Your task to perform on an android device: Search for "razer thresher" on amazon, select the first entry, and add it to the cart. Image 0: 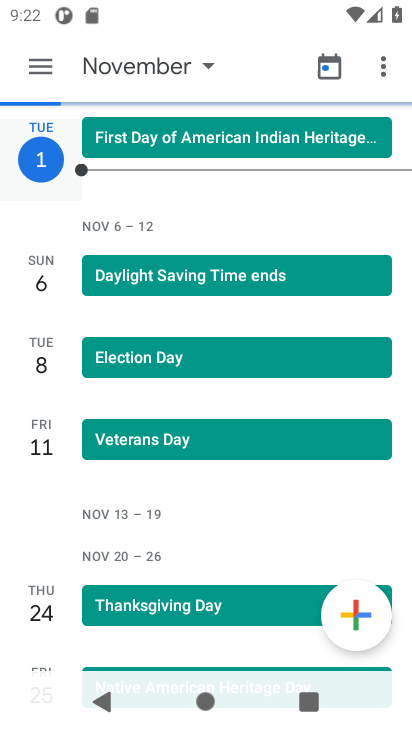
Step 0: press home button
Your task to perform on an android device: Search for "razer thresher" on amazon, select the first entry, and add it to the cart. Image 1: 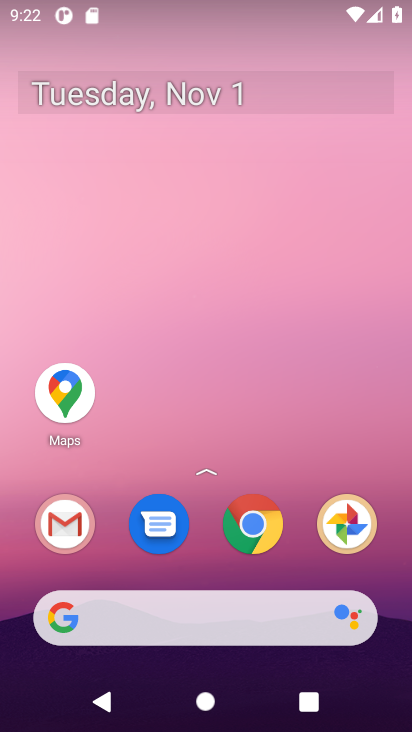
Step 1: click (89, 609)
Your task to perform on an android device: Search for "razer thresher" on amazon, select the first entry, and add it to the cart. Image 2: 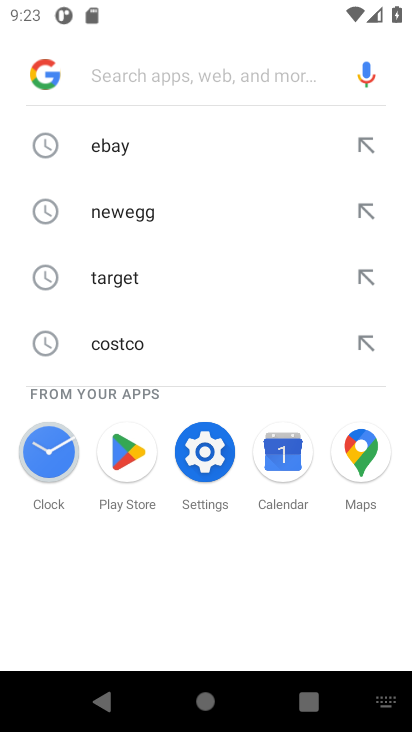
Step 2: press enter
Your task to perform on an android device: Search for "razer thresher" on amazon, select the first entry, and add it to the cart. Image 3: 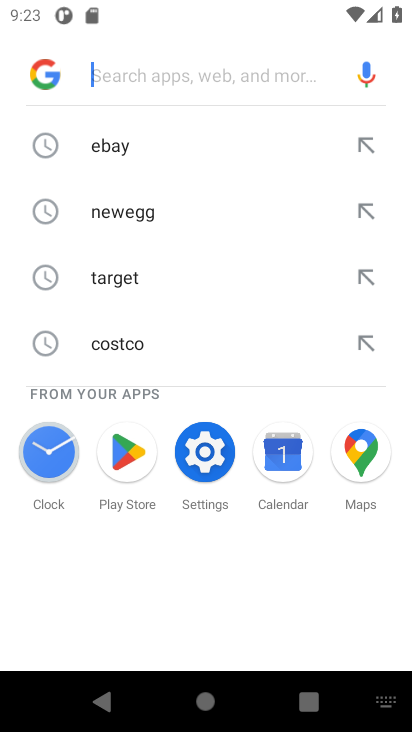
Step 3: type "amazon"
Your task to perform on an android device: Search for "razer thresher" on amazon, select the first entry, and add it to the cart. Image 4: 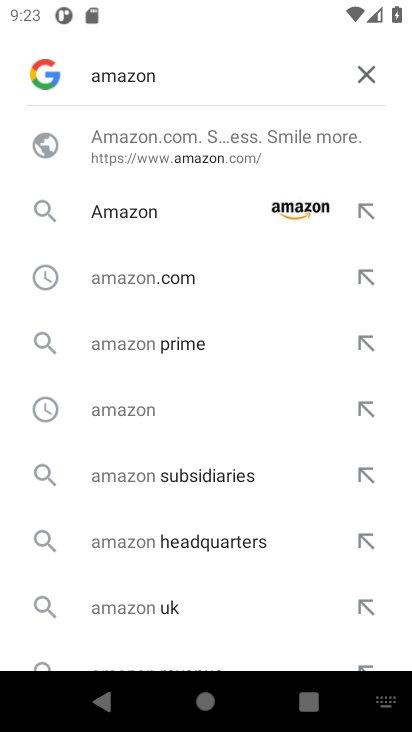
Step 4: press enter
Your task to perform on an android device: Search for "razer thresher" on amazon, select the first entry, and add it to the cart. Image 5: 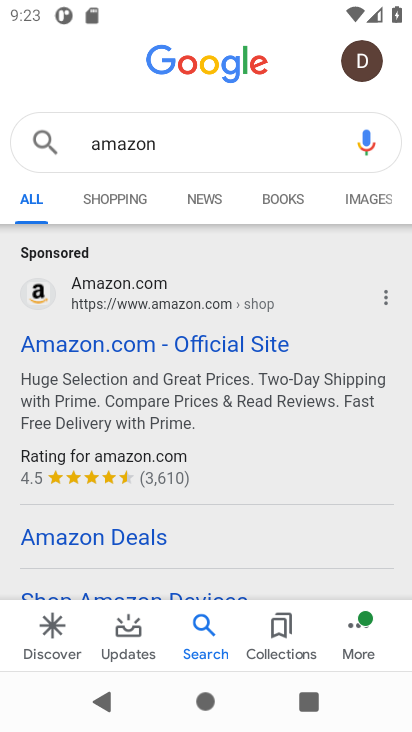
Step 5: click (148, 342)
Your task to perform on an android device: Search for "razer thresher" on amazon, select the first entry, and add it to the cart. Image 6: 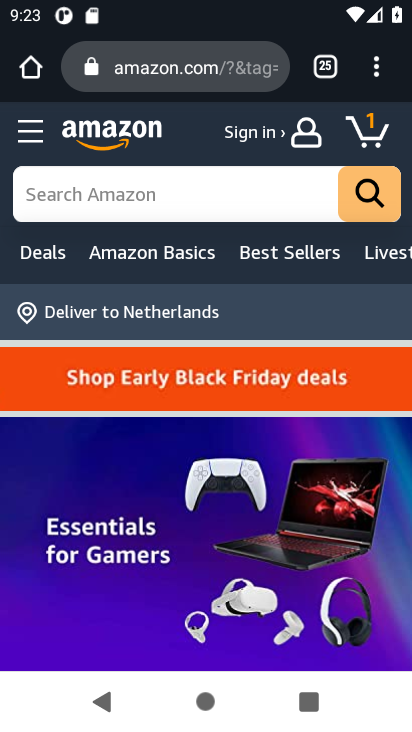
Step 6: click (67, 199)
Your task to perform on an android device: Search for "razer thresher" on amazon, select the first entry, and add it to the cart. Image 7: 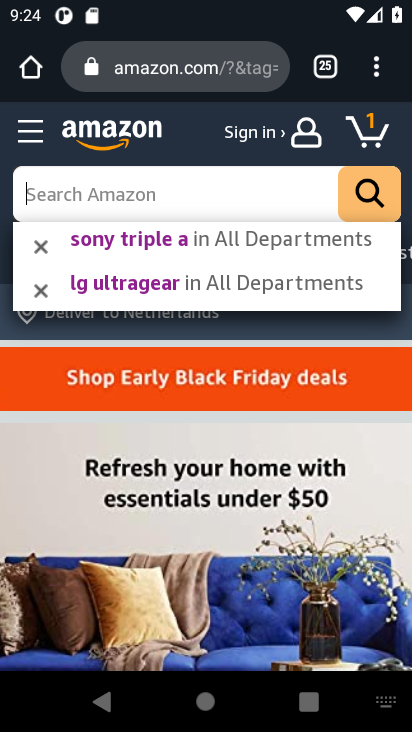
Step 7: press enter
Your task to perform on an android device: Search for "razer thresher" on amazon, select the first entry, and add it to the cart. Image 8: 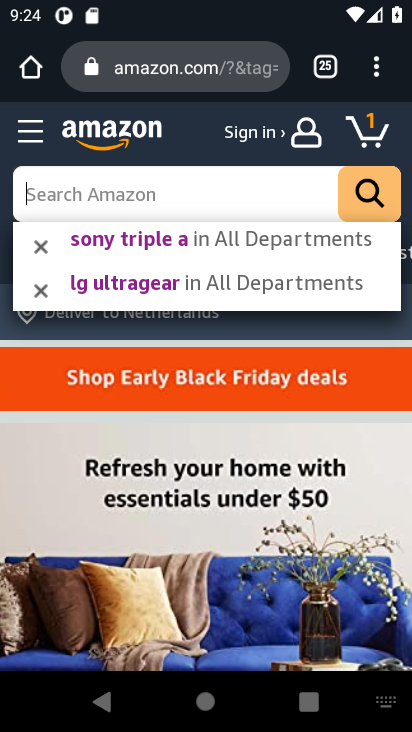
Step 8: type "razer thresher"
Your task to perform on an android device: Search for "razer thresher" on amazon, select the first entry, and add it to the cart. Image 9: 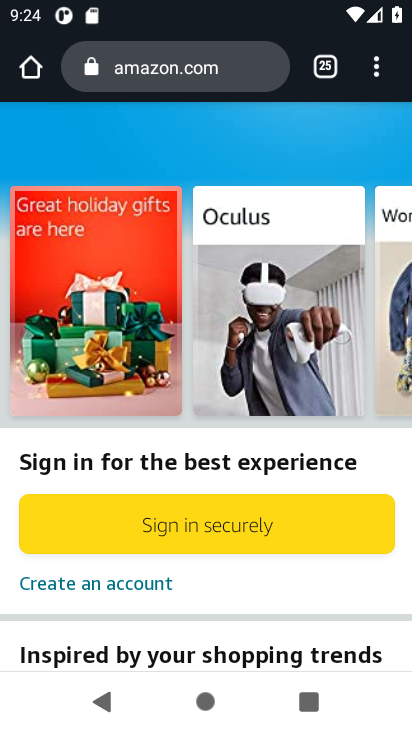
Step 9: task complete